Your task to perform on an android device: show emergency info Image 0: 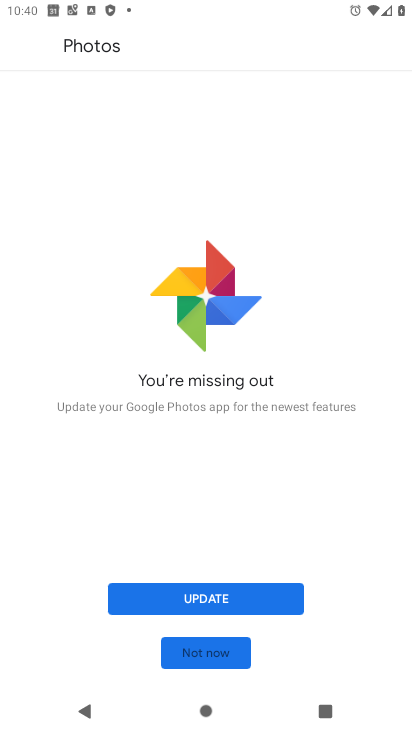
Step 0: click (241, 598)
Your task to perform on an android device: show emergency info Image 1: 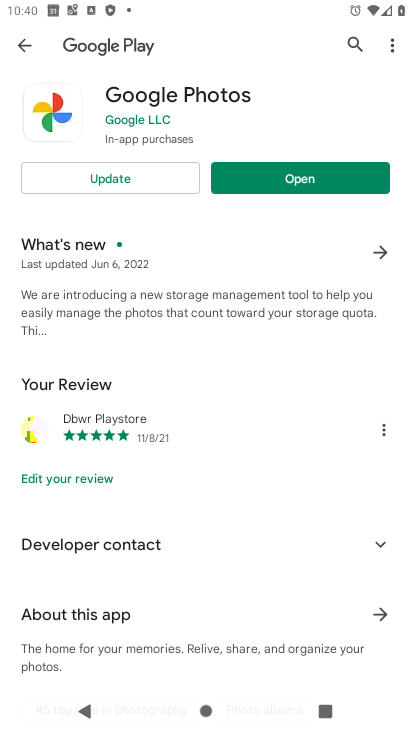
Step 1: press home button
Your task to perform on an android device: show emergency info Image 2: 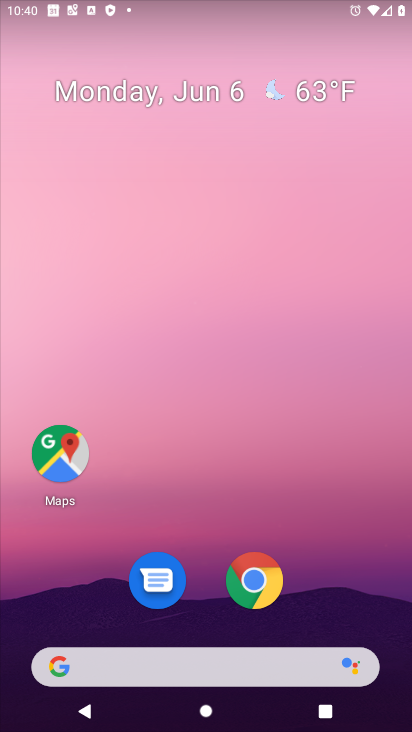
Step 2: drag from (340, 602) to (286, 1)
Your task to perform on an android device: show emergency info Image 3: 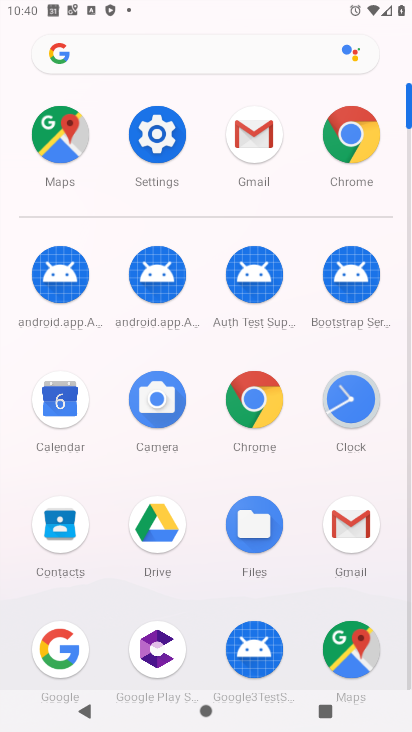
Step 3: click (153, 145)
Your task to perform on an android device: show emergency info Image 4: 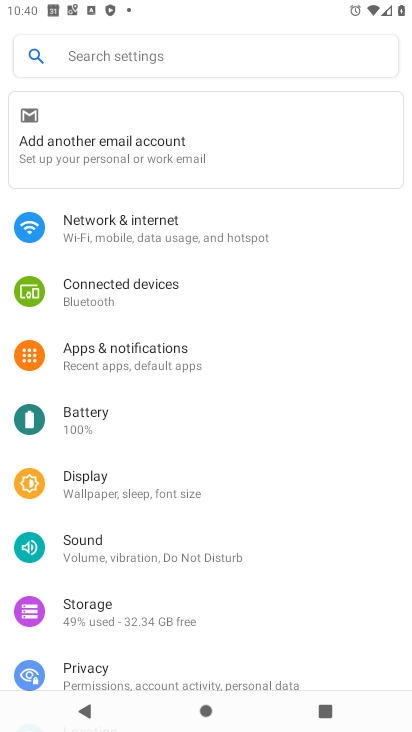
Step 4: drag from (232, 659) to (282, 185)
Your task to perform on an android device: show emergency info Image 5: 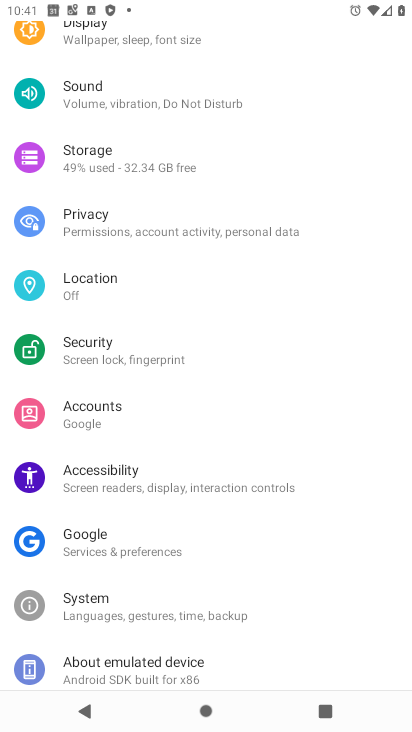
Step 5: drag from (239, 630) to (365, 244)
Your task to perform on an android device: show emergency info Image 6: 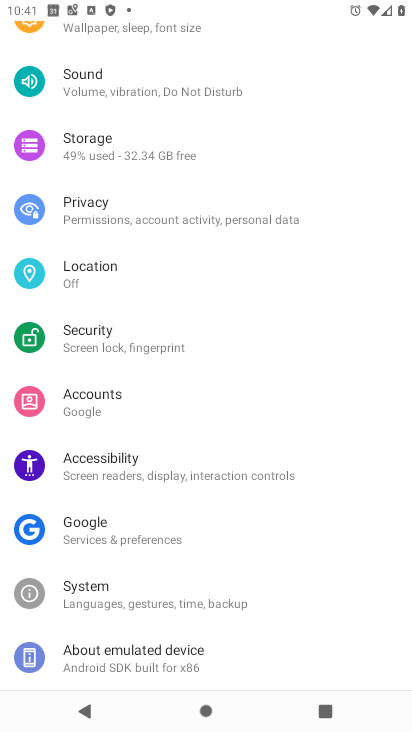
Step 6: click (91, 649)
Your task to perform on an android device: show emergency info Image 7: 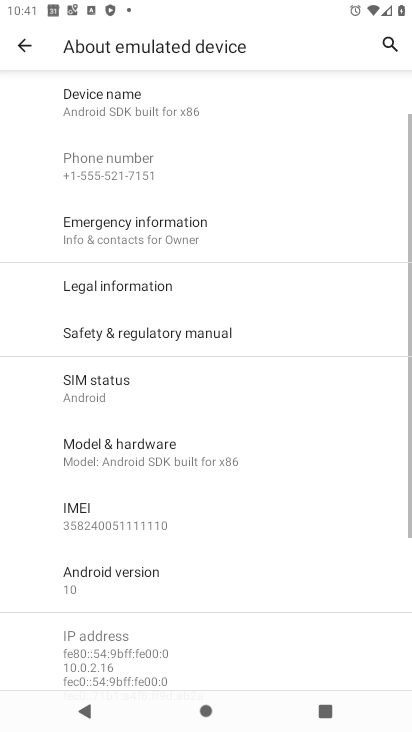
Step 7: click (110, 237)
Your task to perform on an android device: show emergency info Image 8: 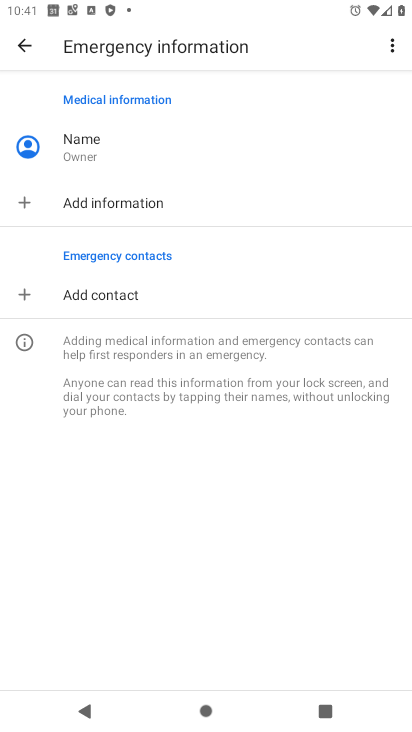
Step 8: task complete